Your task to perform on an android device: turn notification dots off Image 0: 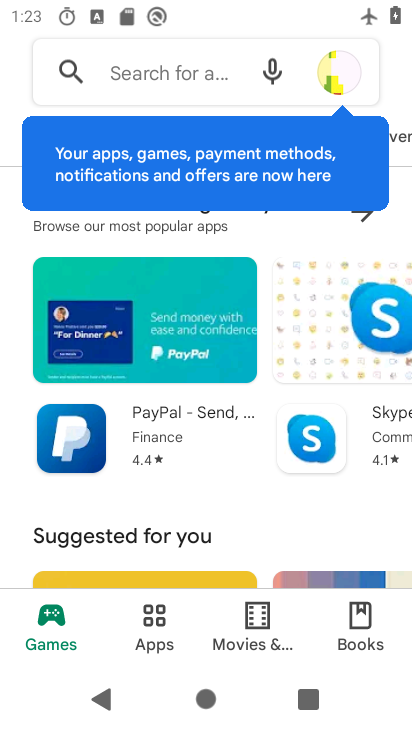
Step 0: press home button
Your task to perform on an android device: turn notification dots off Image 1: 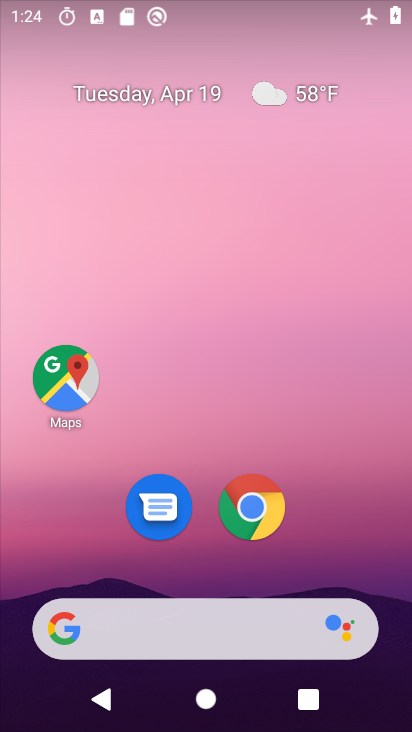
Step 1: drag from (212, 555) to (206, 2)
Your task to perform on an android device: turn notification dots off Image 2: 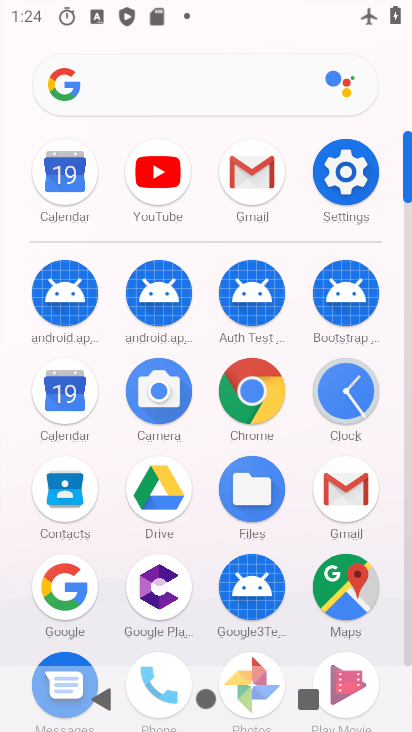
Step 2: click (339, 174)
Your task to perform on an android device: turn notification dots off Image 3: 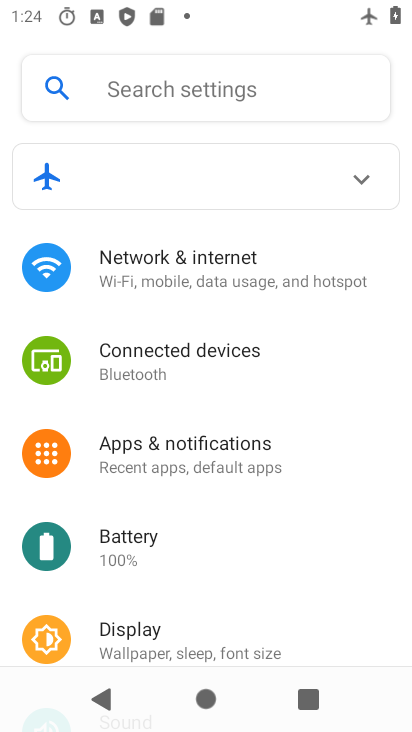
Step 3: click (193, 454)
Your task to perform on an android device: turn notification dots off Image 4: 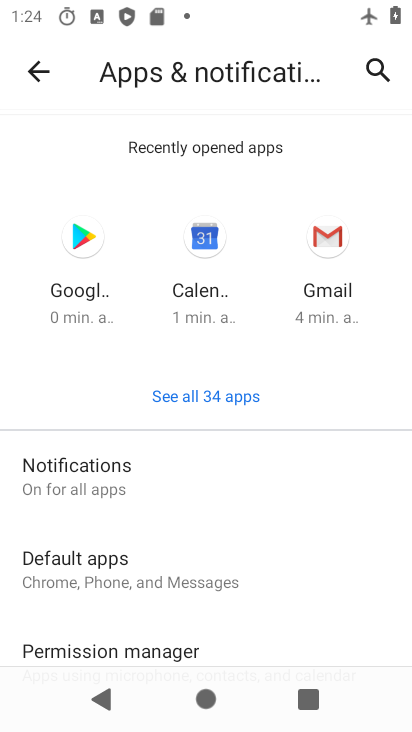
Step 4: click (142, 476)
Your task to perform on an android device: turn notification dots off Image 5: 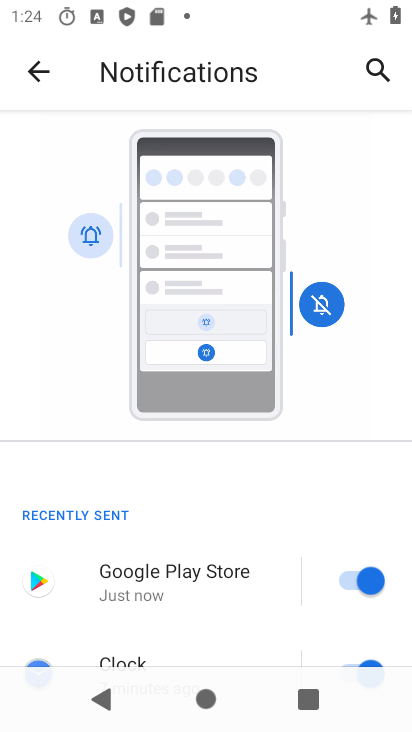
Step 5: drag from (211, 607) to (215, 208)
Your task to perform on an android device: turn notification dots off Image 6: 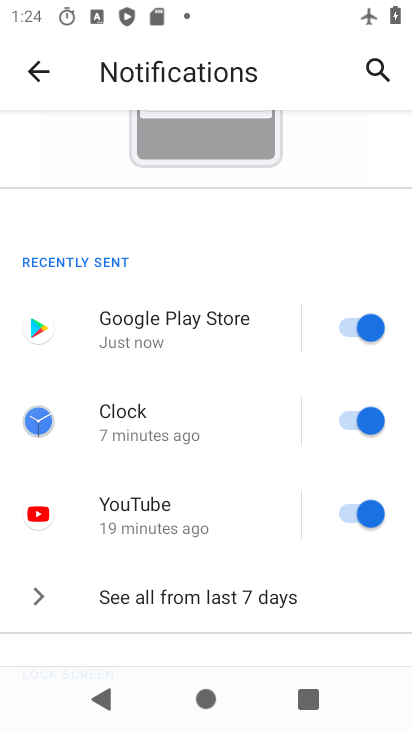
Step 6: drag from (247, 537) to (263, 301)
Your task to perform on an android device: turn notification dots off Image 7: 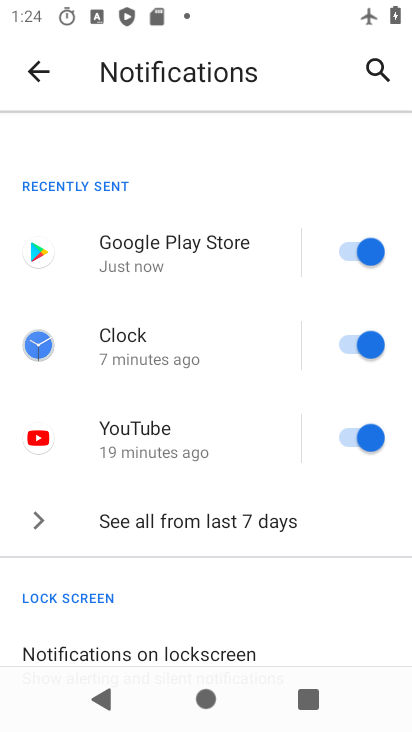
Step 7: drag from (204, 560) to (201, 454)
Your task to perform on an android device: turn notification dots off Image 8: 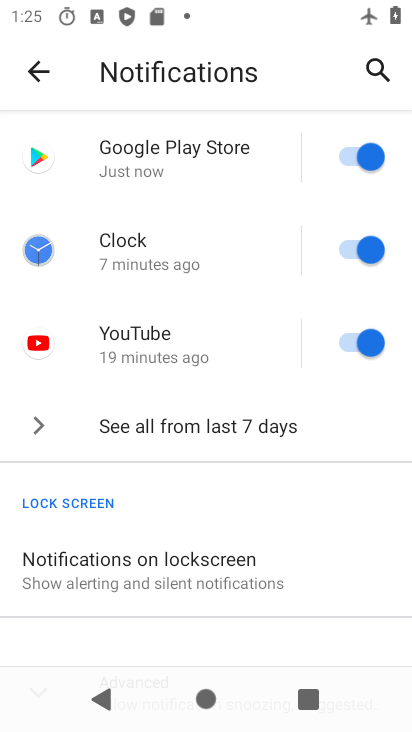
Step 8: drag from (209, 551) to (245, 256)
Your task to perform on an android device: turn notification dots off Image 9: 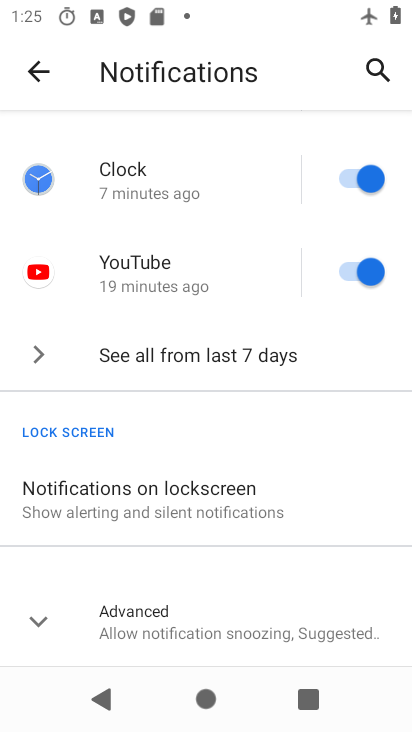
Step 9: click (219, 612)
Your task to perform on an android device: turn notification dots off Image 10: 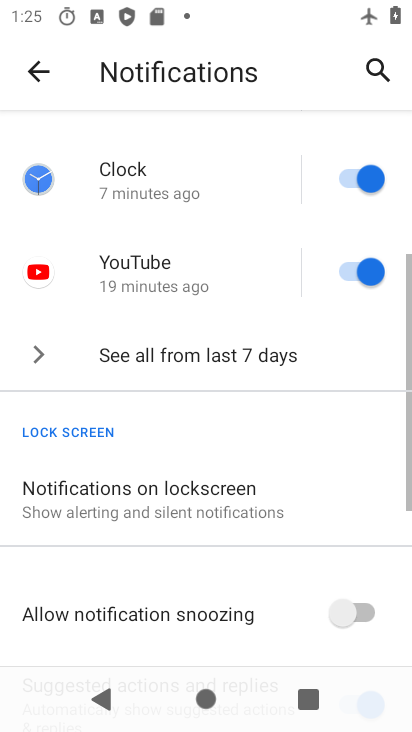
Step 10: drag from (210, 597) to (217, 182)
Your task to perform on an android device: turn notification dots off Image 11: 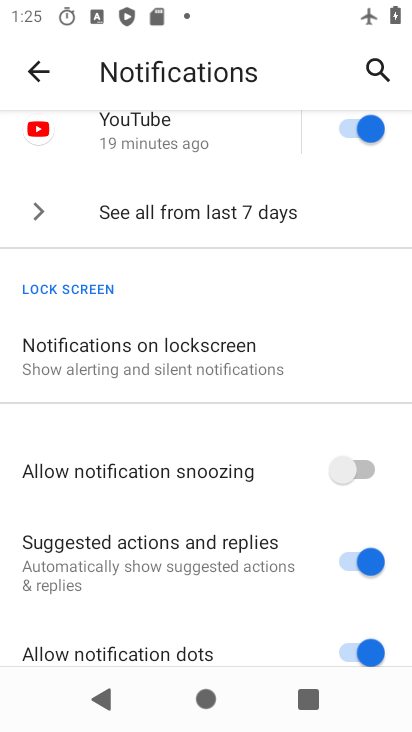
Step 11: drag from (218, 528) to (209, 320)
Your task to perform on an android device: turn notification dots off Image 12: 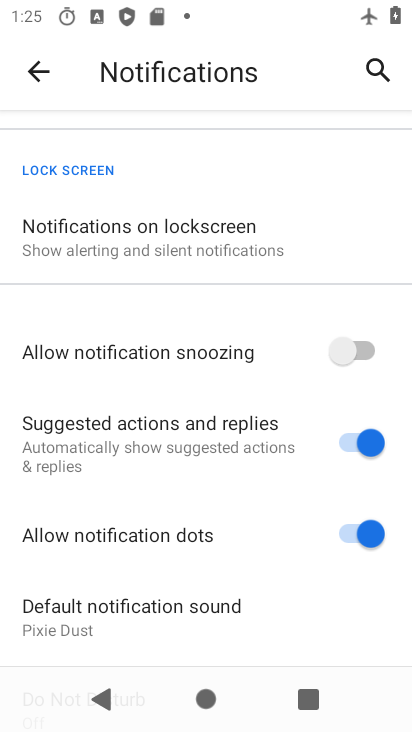
Step 12: click (344, 529)
Your task to perform on an android device: turn notification dots off Image 13: 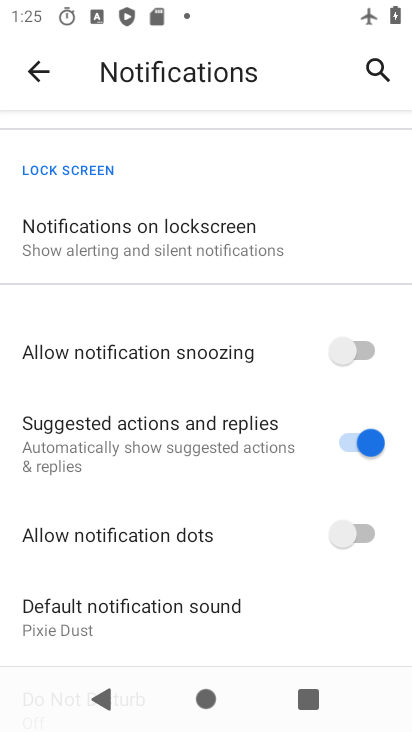
Step 13: task complete